Your task to perform on an android device: Open Google Chrome Image 0: 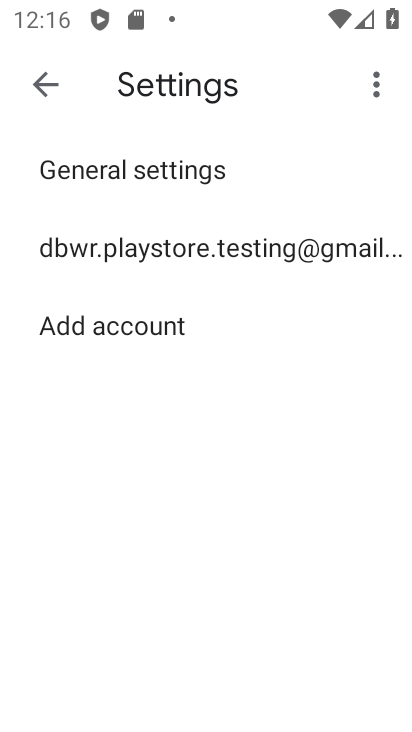
Step 0: press home button
Your task to perform on an android device: Open Google Chrome Image 1: 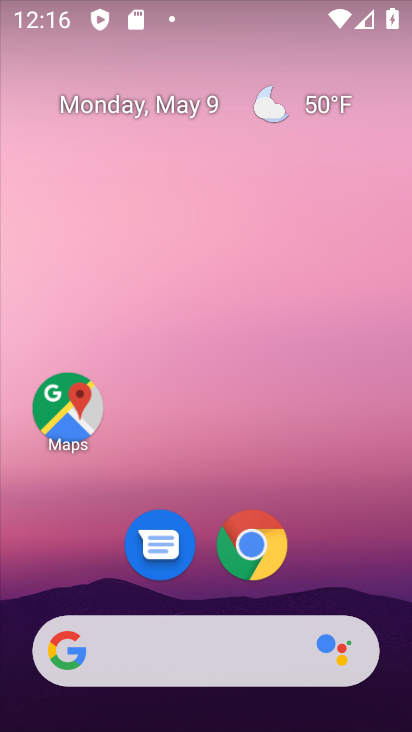
Step 1: click (273, 530)
Your task to perform on an android device: Open Google Chrome Image 2: 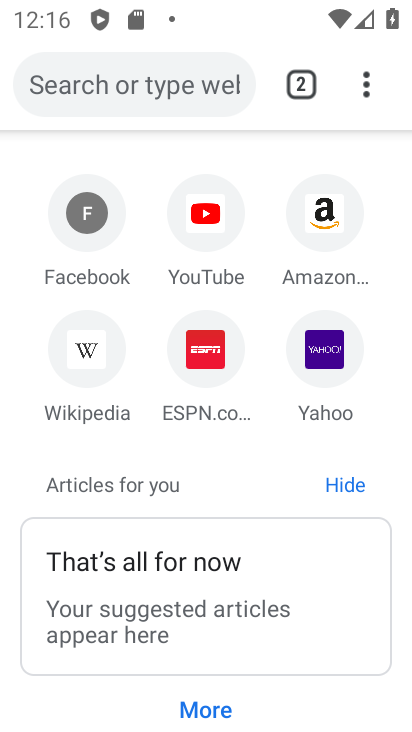
Step 2: task complete